Your task to perform on an android device: Open settings on Google Maps Image 0: 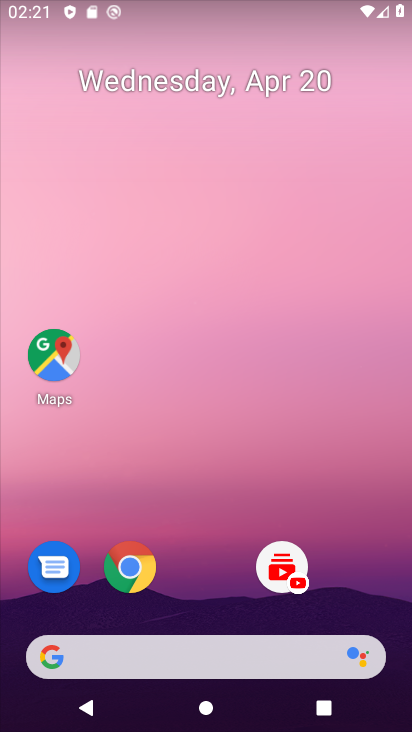
Step 0: drag from (214, 625) to (265, 212)
Your task to perform on an android device: Open settings on Google Maps Image 1: 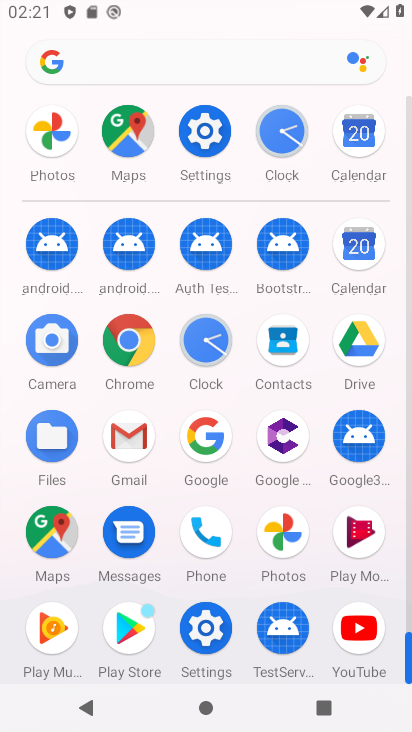
Step 1: click (32, 531)
Your task to perform on an android device: Open settings on Google Maps Image 2: 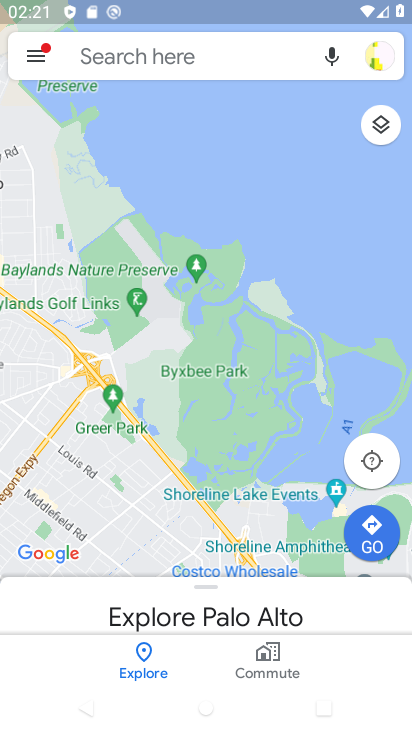
Step 2: click (32, 62)
Your task to perform on an android device: Open settings on Google Maps Image 3: 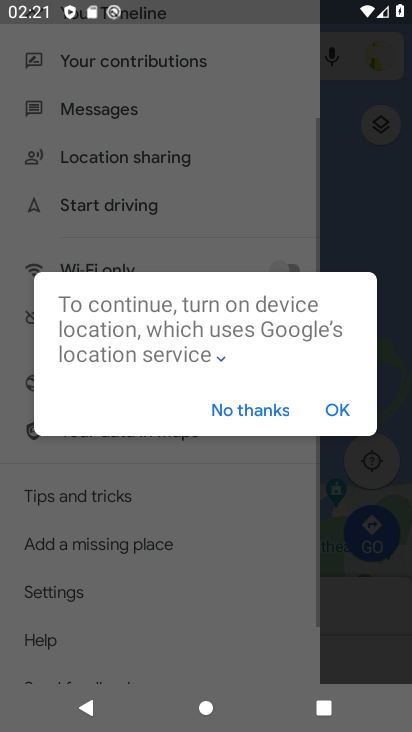
Step 3: click (251, 398)
Your task to perform on an android device: Open settings on Google Maps Image 4: 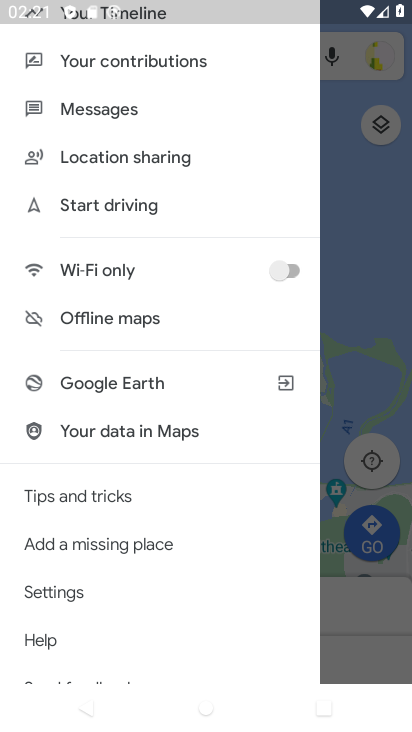
Step 4: click (83, 605)
Your task to perform on an android device: Open settings on Google Maps Image 5: 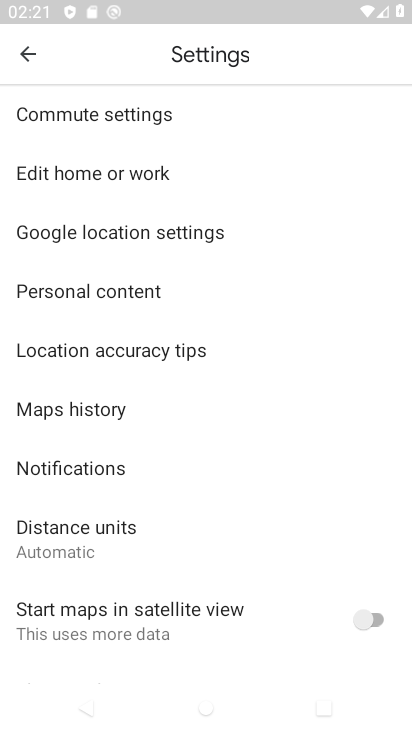
Step 5: task complete